Your task to perform on an android device: turn off picture-in-picture Image 0: 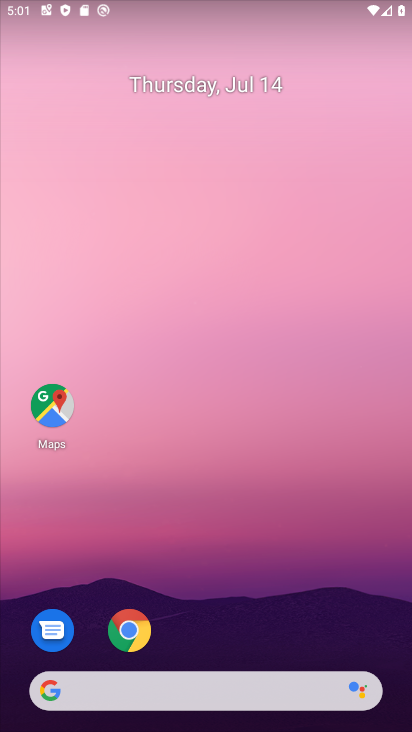
Step 0: drag from (347, 688) to (347, 150)
Your task to perform on an android device: turn off picture-in-picture Image 1: 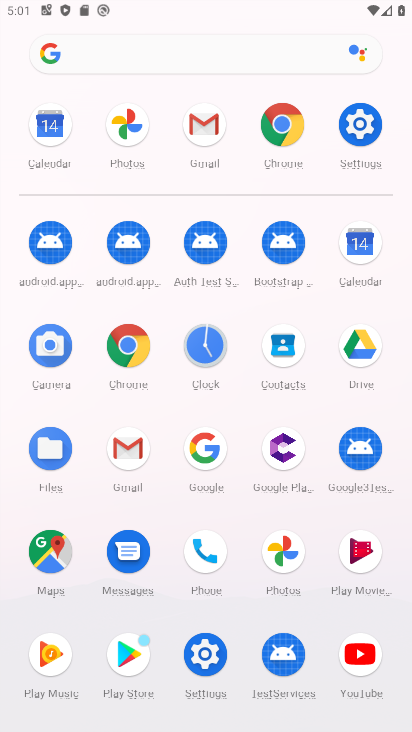
Step 1: click (355, 129)
Your task to perform on an android device: turn off picture-in-picture Image 2: 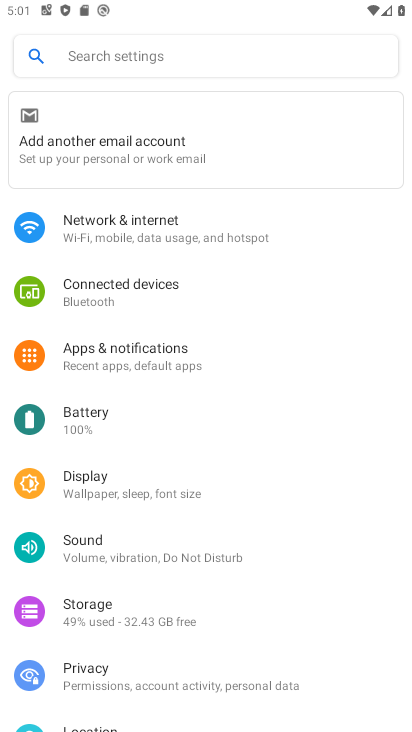
Step 2: click (81, 345)
Your task to perform on an android device: turn off picture-in-picture Image 3: 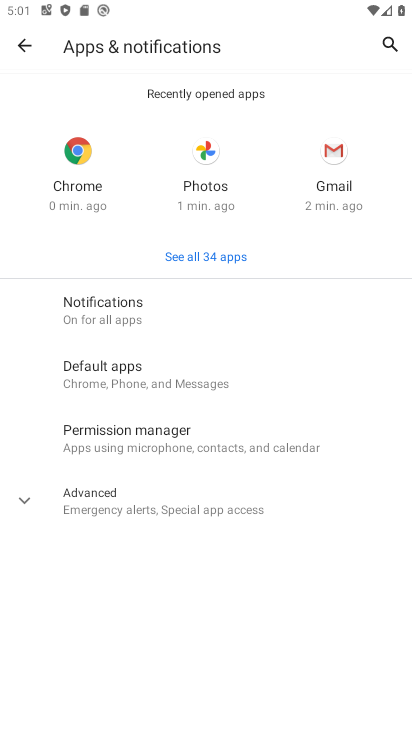
Step 3: click (149, 510)
Your task to perform on an android device: turn off picture-in-picture Image 4: 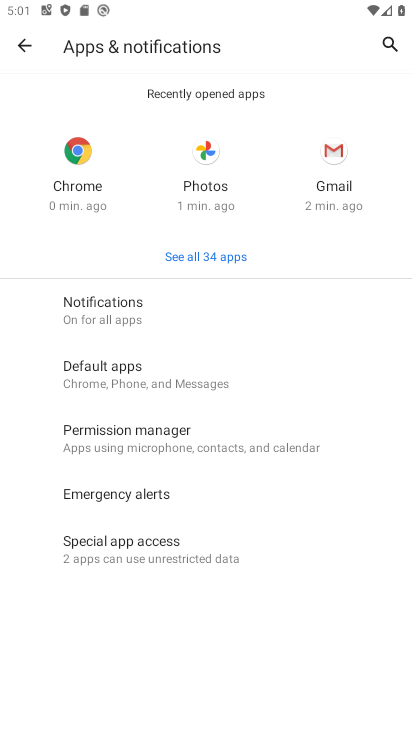
Step 4: click (103, 549)
Your task to perform on an android device: turn off picture-in-picture Image 5: 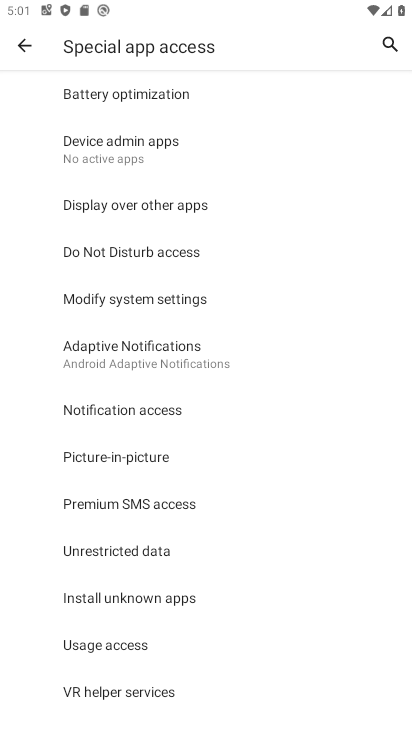
Step 5: click (99, 457)
Your task to perform on an android device: turn off picture-in-picture Image 6: 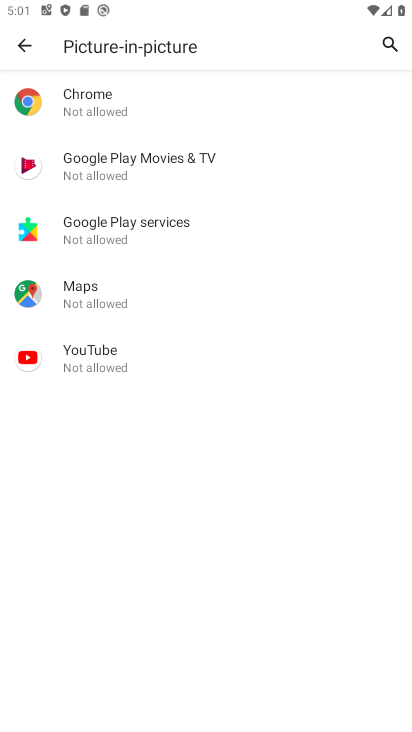
Step 6: task complete